Your task to perform on an android device: Open maps Image 0: 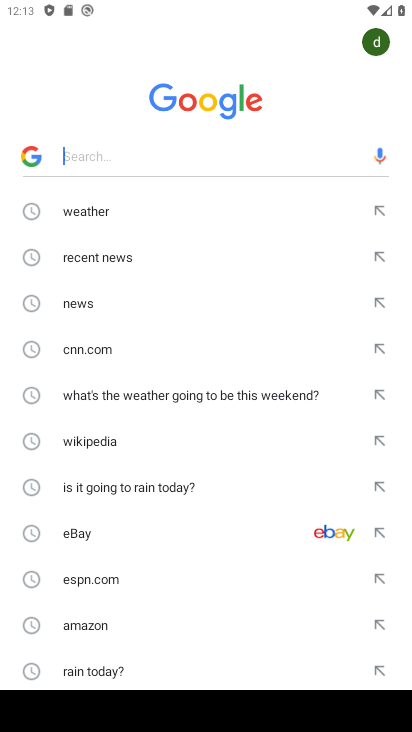
Step 0: press home button
Your task to perform on an android device: Open maps Image 1: 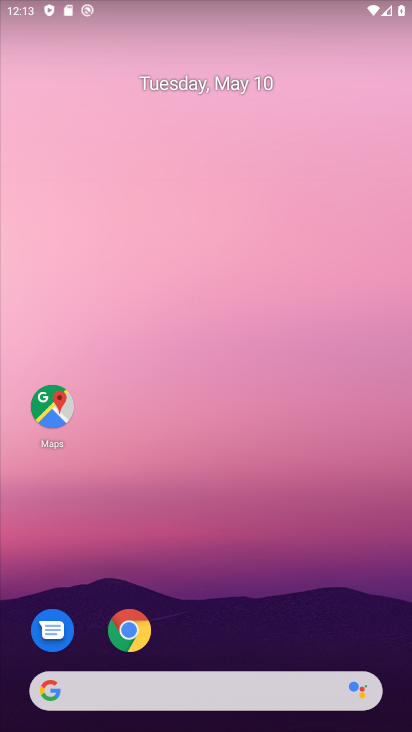
Step 1: drag from (211, 720) to (198, 389)
Your task to perform on an android device: Open maps Image 2: 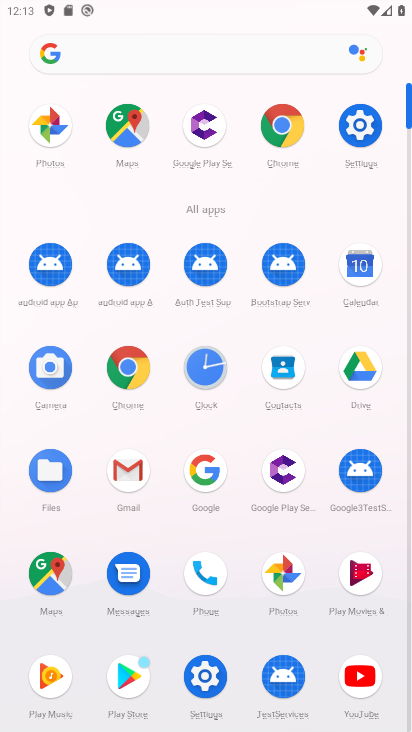
Step 2: click (46, 579)
Your task to perform on an android device: Open maps Image 3: 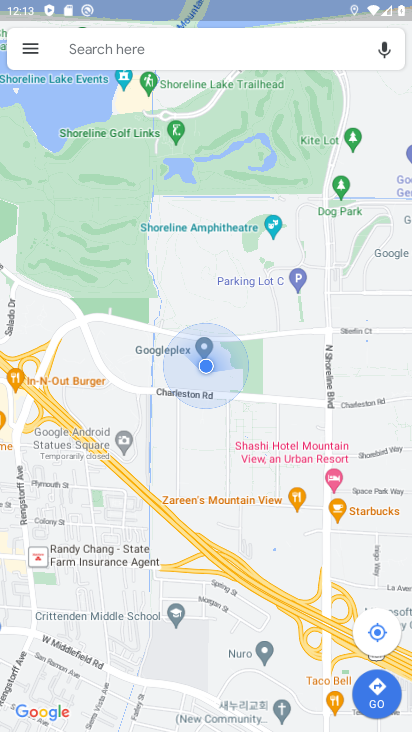
Step 3: task complete